Your task to perform on an android device: toggle improve location accuracy Image 0: 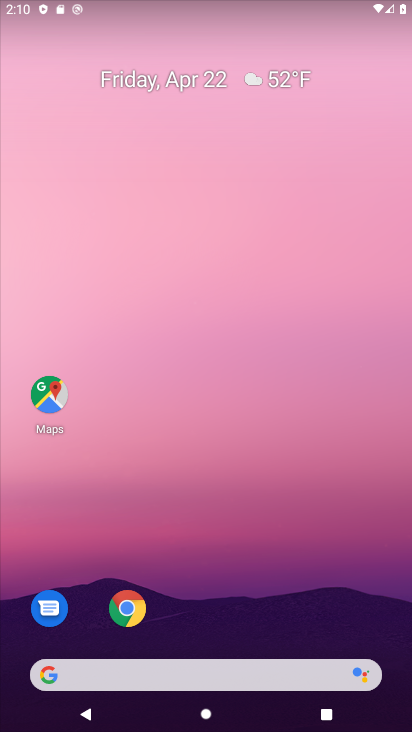
Step 0: drag from (266, 618) to (276, 180)
Your task to perform on an android device: toggle improve location accuracy Image 1: 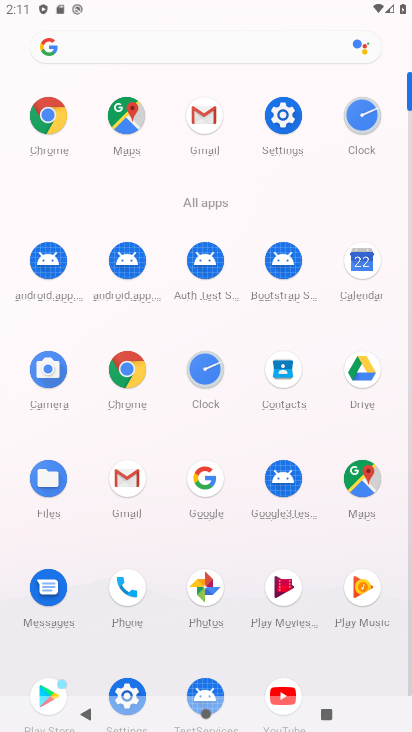
Step 1: click (277, 125)
Your task to perform on an android device: toggle improve location accuracy Image 2: 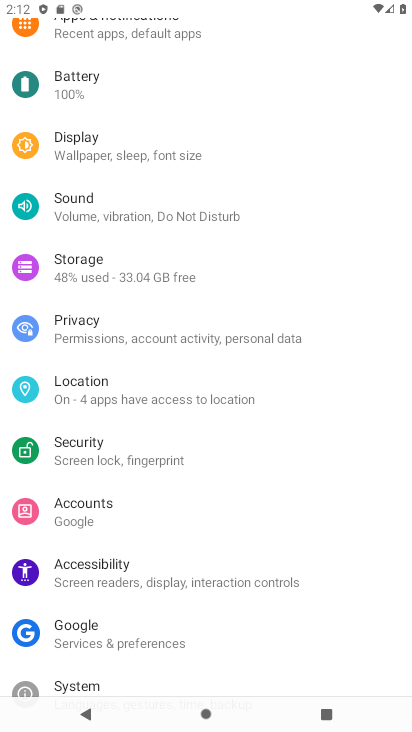
Step 2: click (142, 399)
Your task to perform on an android device: toggle improve location accuracy Image 3: 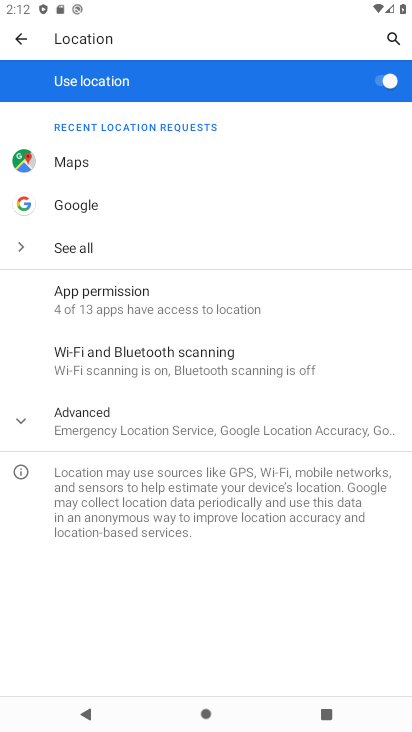
Step 3: click (156, 426)
Your task to perform on an android device: toggle improve location accuracy Image 4: 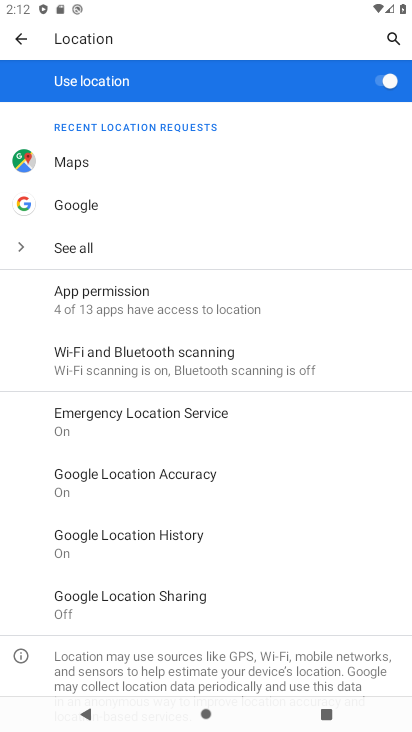
Step 4: click (175, 487)
Your task to perform on an android device: toggle improve location accuracy Image 5: 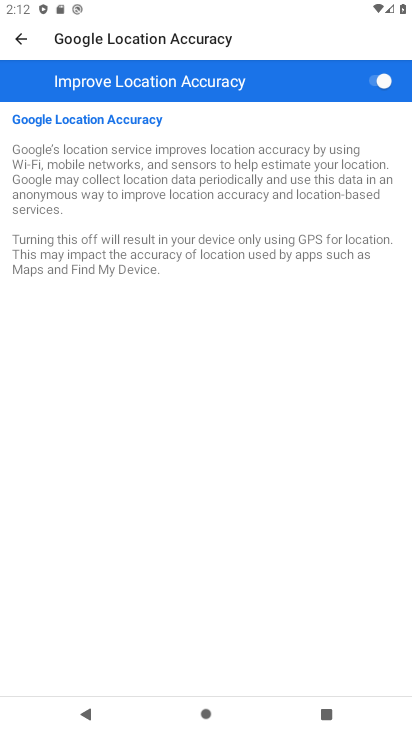
Step 5: click (369, 81)
Your task to perform on an android device: toggle improve location accuracy Image 6: 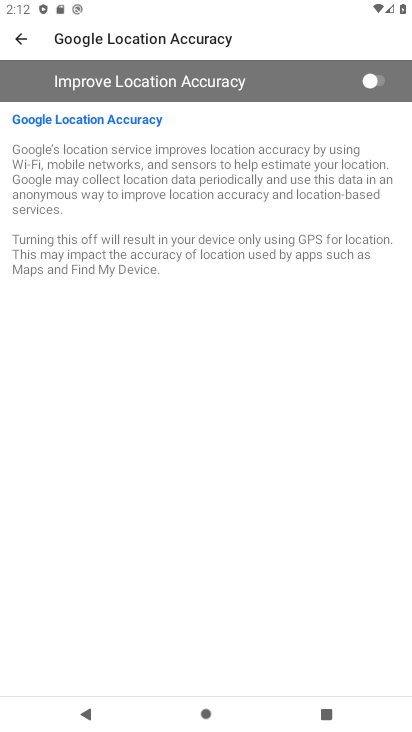
Step 6: task complete